Your task to perform on an android device: Go to battery settings Image 0: 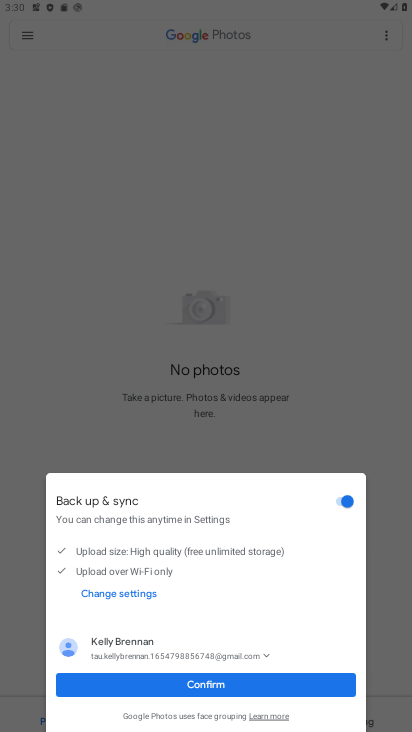
Step 0: press home button
Your task to perform on an android device: Go to battery settings Image 1: 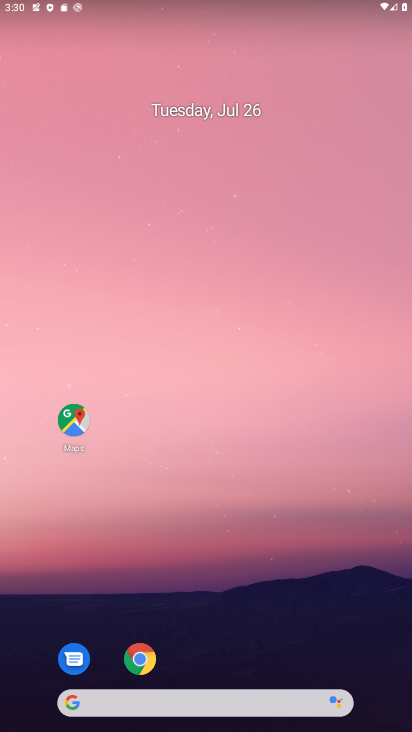
Step 1: drag from (261, 635) to (245, 132)
Your task to perform on an android device: Go to battery settings Image 2: 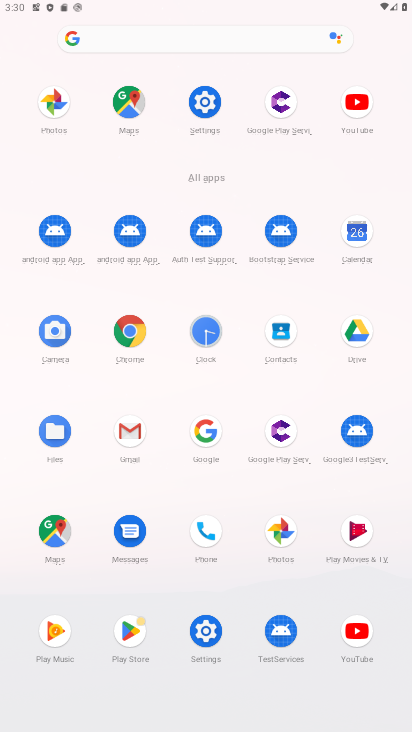
Step 2: click (191, 93)
Your task to perform on an android device: Go to battery settings Image 3: 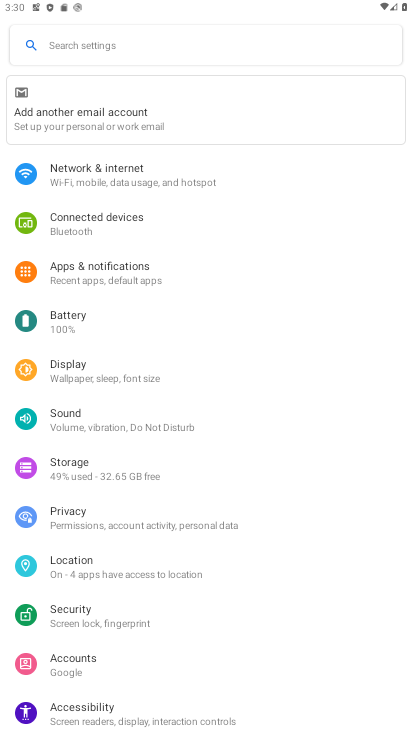
Step 3: click (78, 323)
Your task to perform on an android device: Go to battery settings Image 4: 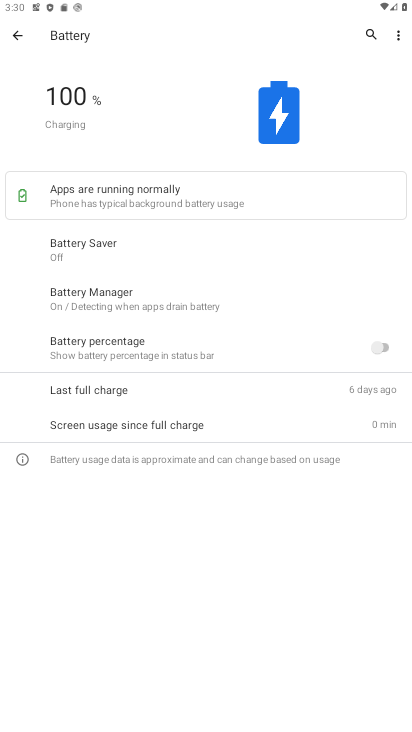
Step 4: task complete